Your task to perform on an android device: see sites visited before in the chrome app Image 0: 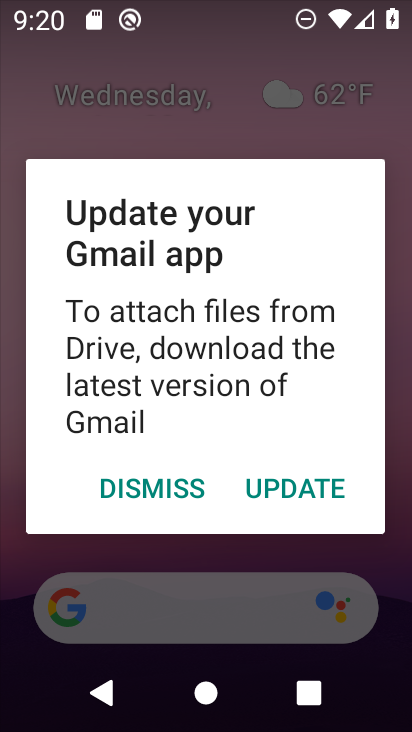
Step 0: press home button
Your task to perform on an android device: see sites visited before in the chrome app Image 1: 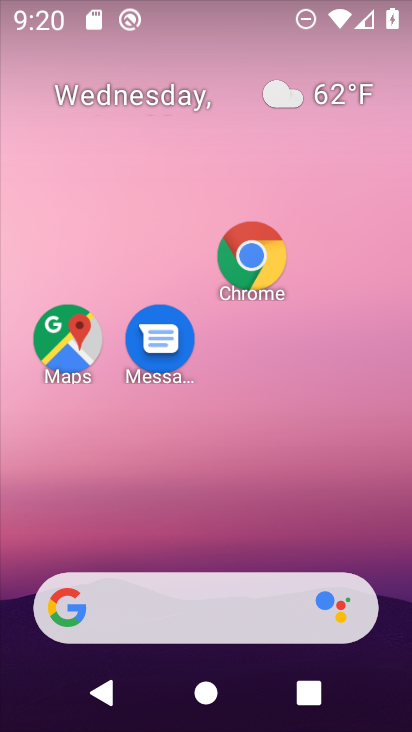
Step 1: click (256, 256)
Your task to perform on an android device: see sites visited before in the chrome app Image 2: 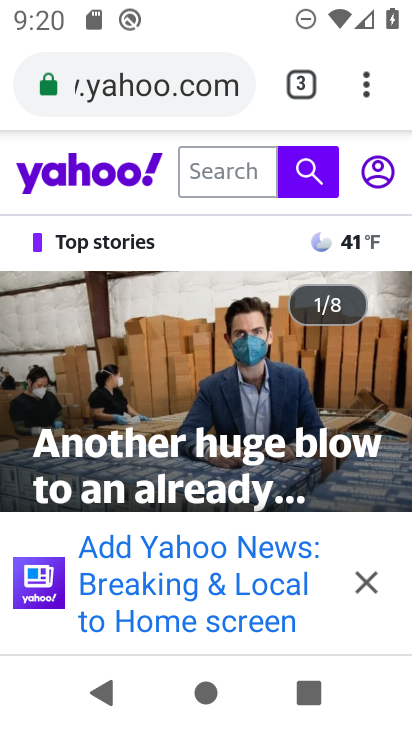
Step 2: click (360, 80)
Your task to perform on an android device: see sites visited before in the chrome app Image 3: 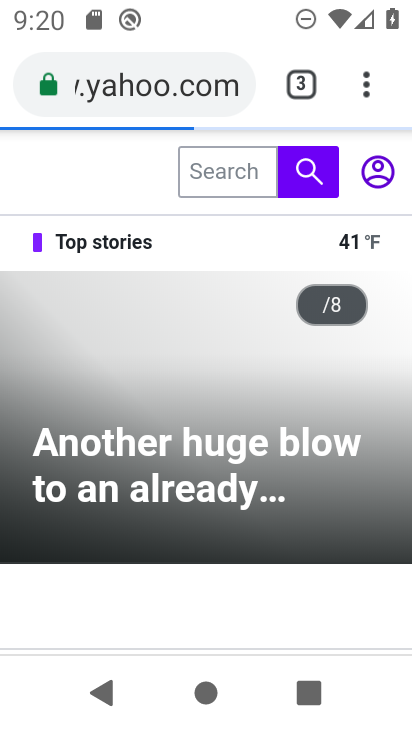
Step 3: click (360, 88)
Your task to perform on an android device: see sites visited before in the chrome app Image 4: 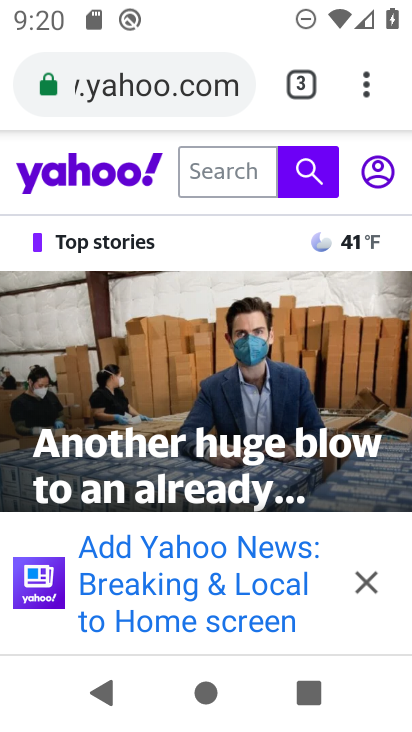
Step 4: click (360, 88)
Your task to perform on an android device: see sites visited before in the chrome app Image 5: 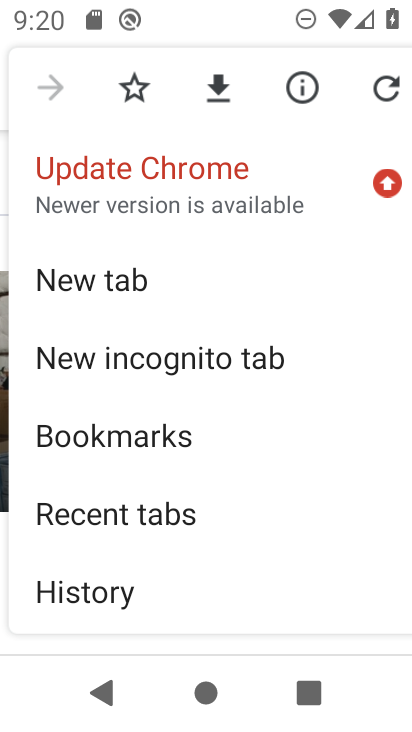
Step 5: click (122, 603)
Your task to perform on an android device: see sites visited before in the chrome app Image 6: 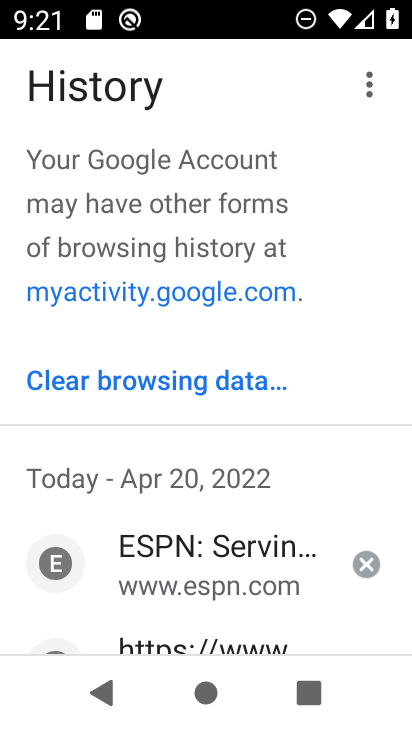
Step 6: task complete